Your task to perform on an android device: turn on bluetooth scan Image 0: 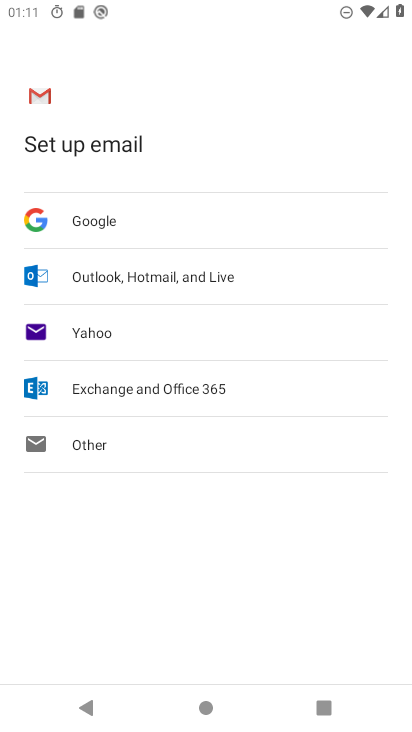
Step 0: press home button
Your task to perform on an android device: turn on bluetooth scan Image 1: 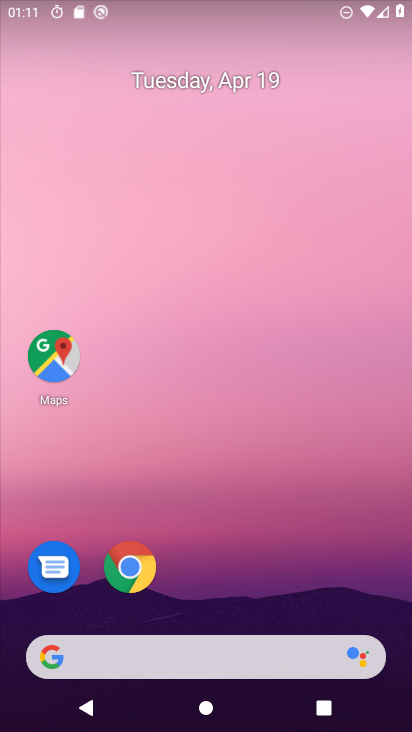
Step 1: drag from (296, 545) to (271, 0)
Your task to perform on an android device: turn on bluetooth scan Image 2: 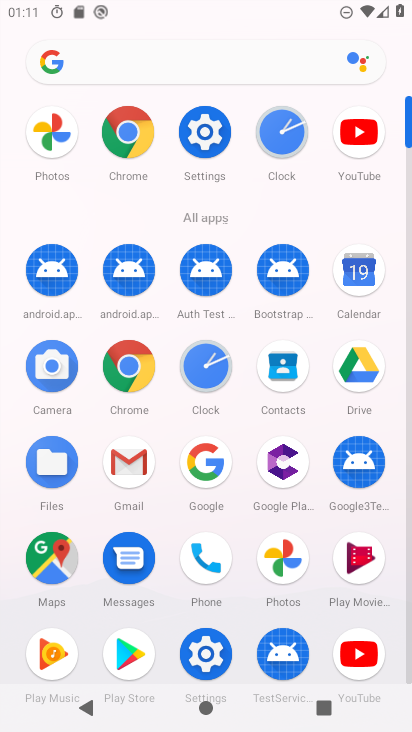
Step 2: click (202, 129)
Your task to perform on an android device: turn on bluetooth scan Image 3: 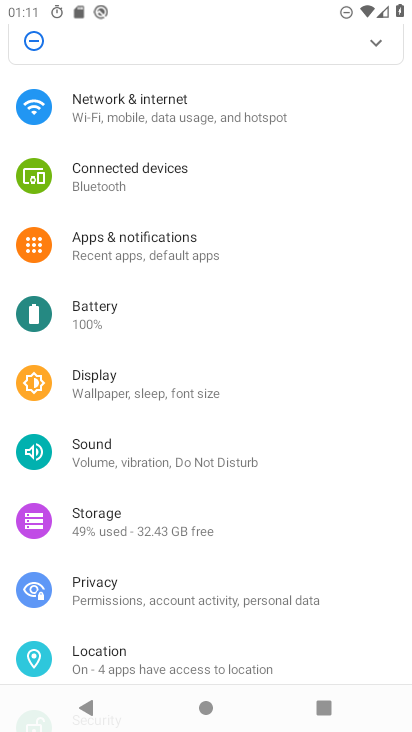
Step 3: drag from (303, 585) to (302, 98)
Your task to perform on an android device: turn on bluetooth scan Image 4: 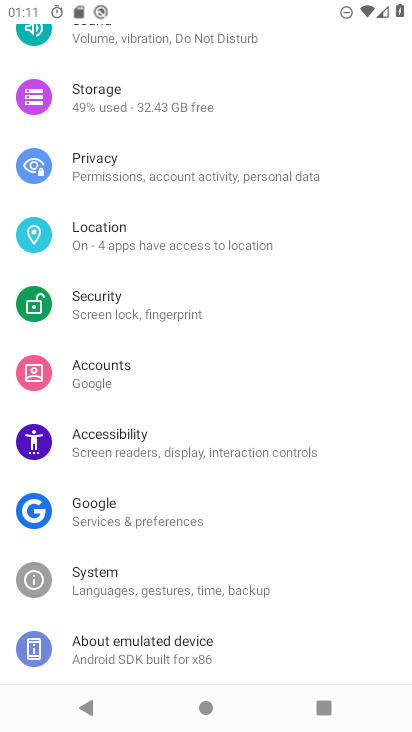
Step 4: click (131, 238)
Your task to perform on an android device: turn on bluetooth scan Image 5: 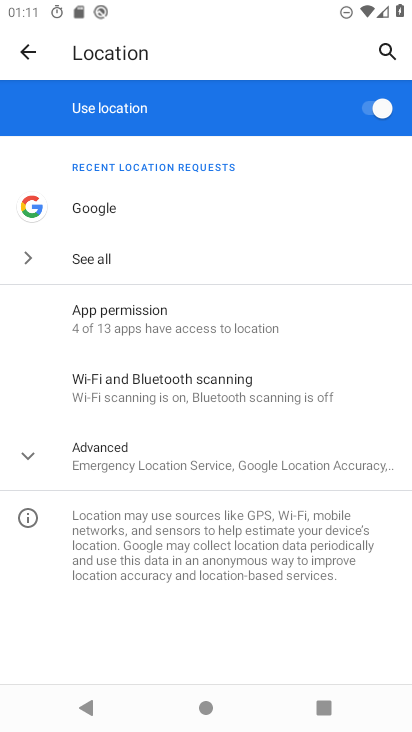
Step 5: click (104, 445)
Your task to perform on an android device: turn on bluetooth scan Image 6: 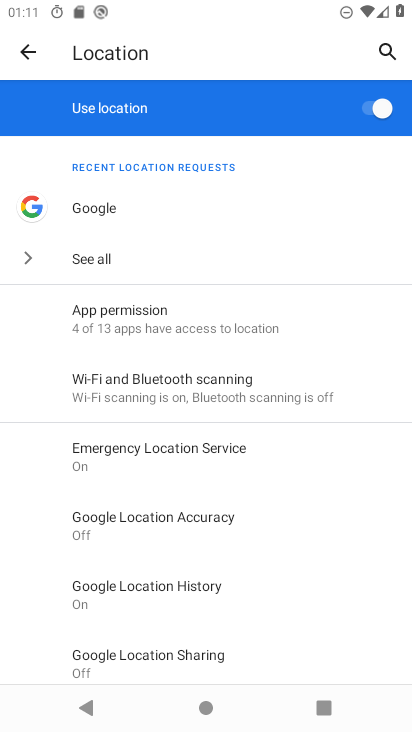
Step 6: drag from (313, 644) to (321, 504)
Your task to perform on an android device: turn on bluetooth scan Image 7: 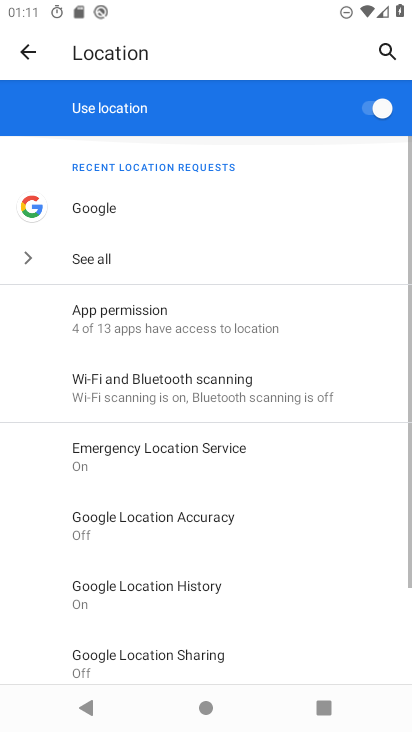
Step 7: click (194, 384)
Your task to perform on an android device: turn on bluetooth scan Image 8: 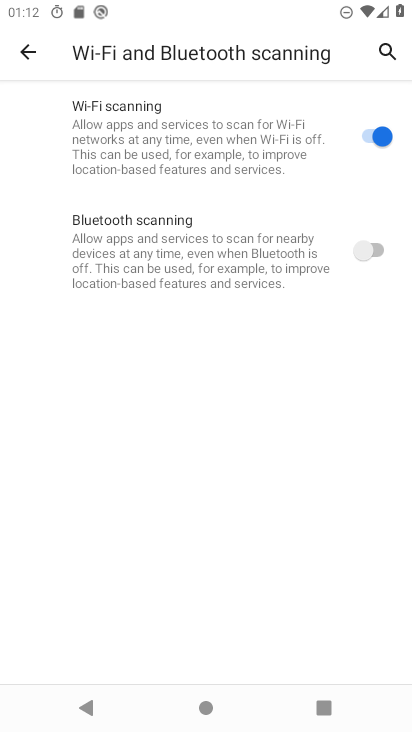
Step 8: click (342, 243)
Your task to perform on an android device: turn on bluetooth scan Image 9: 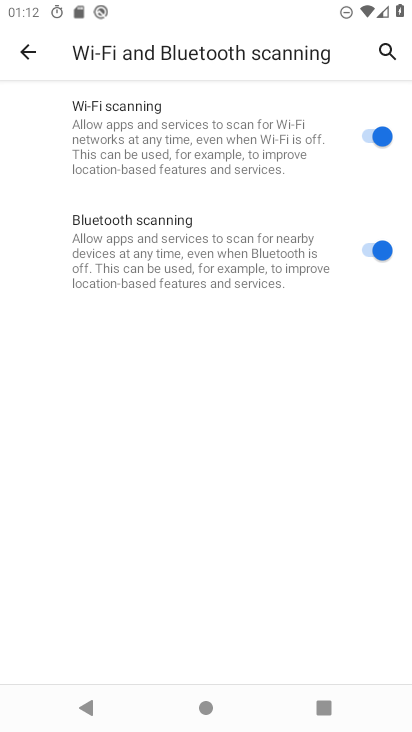
Step 9: task complete